Your task to perform on an android device: Turn off the flashlight Image 0: 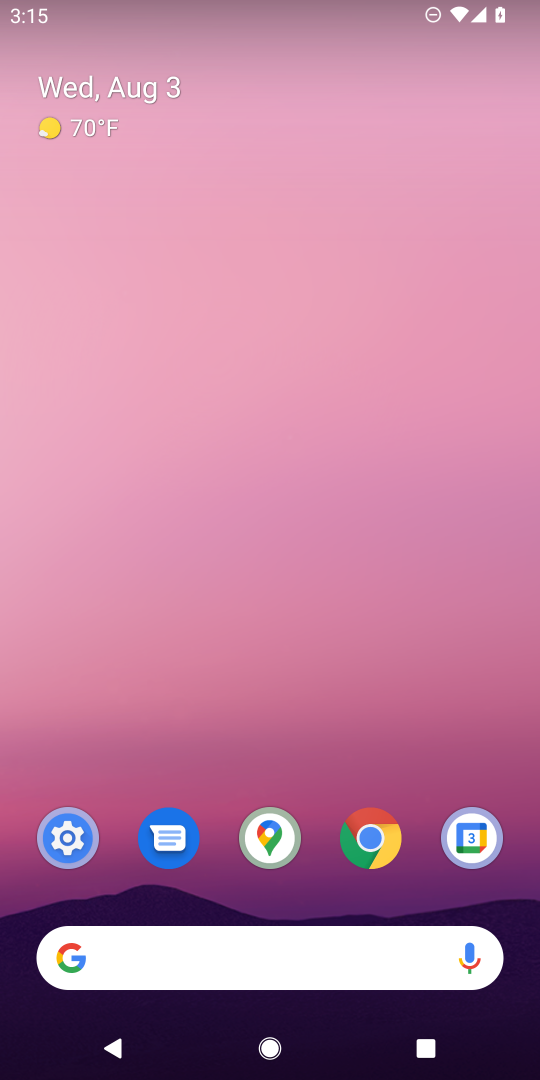
Step 0: click (80, 845)
Your task to perform on an android device: Turn off the flashlight Image 1: 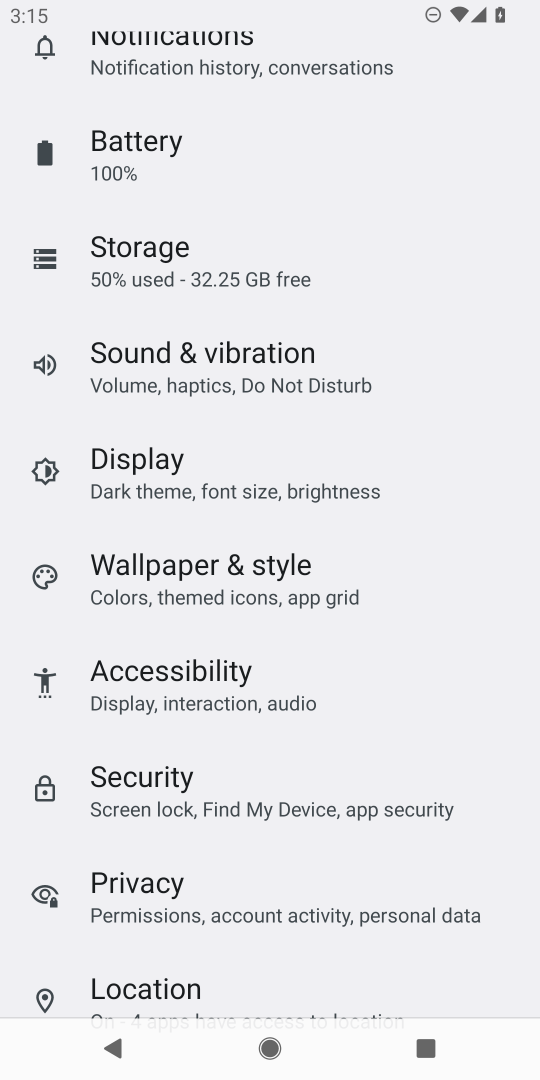
Step 1: task complete